Your task to perform on an android device: turn on the 24-hour format for clock Image 0: 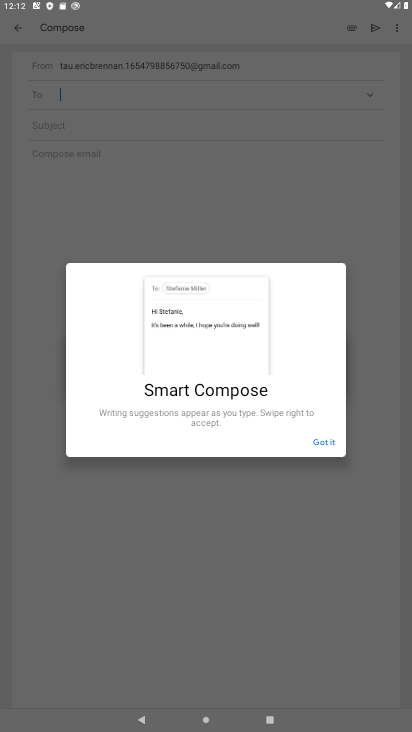
Step 0: press home button
Your task to perform on an android device: turn on the 24-hour format for clock Image 1: 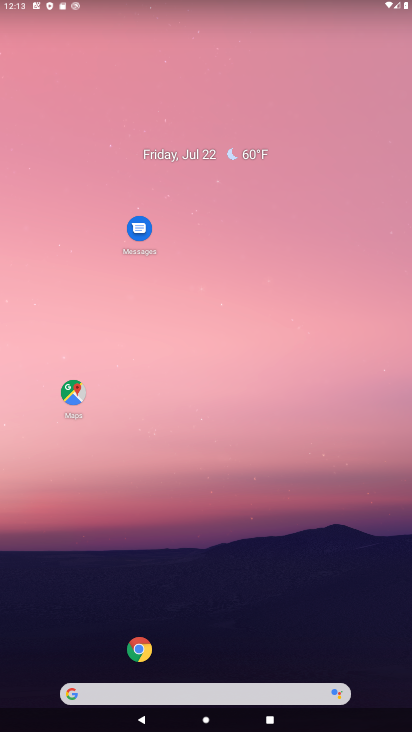
Step 1: drag from (165, 536) to (341, 60)
Your task to perform on an android device: turn on the 24-hour format for clock Image 2: 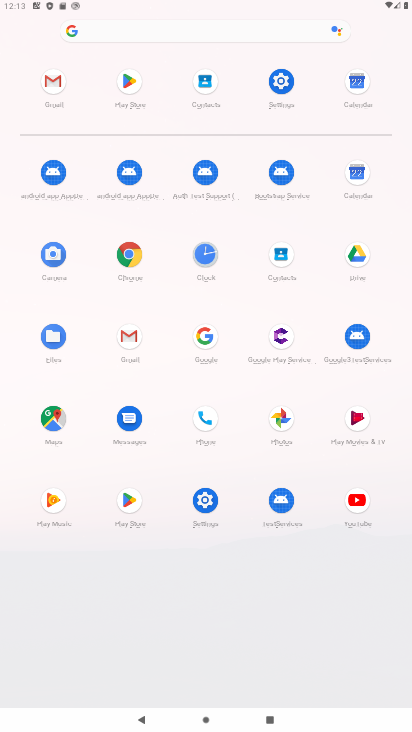
Step 2: click (225, 251)
Your task to perform on an android device: turn on the 24-hour format for clock Image 3: 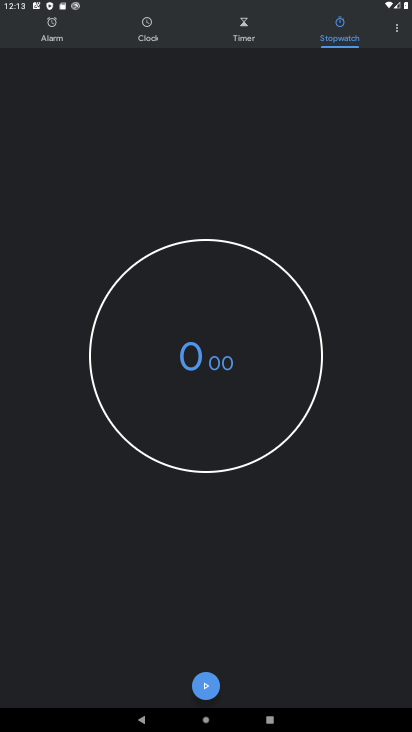
Step 3: click (410, 23)
Your task to perform on an android device: turn on the 24-hour format for clock Image 4: 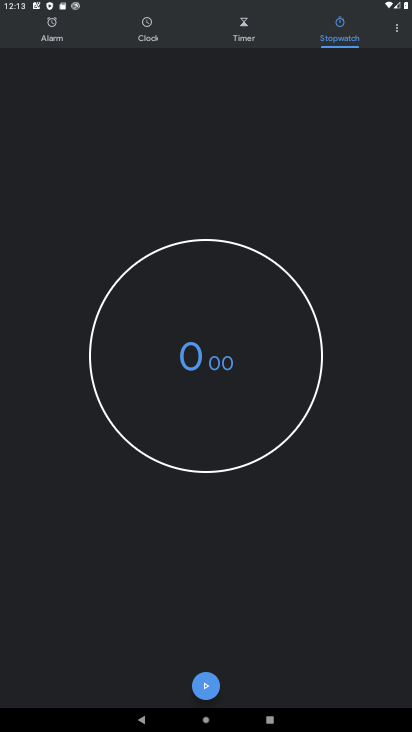
Step 4: click (392, 33)
Your task to perform on an android device: turn on the 24-hour format for clock Image 5: 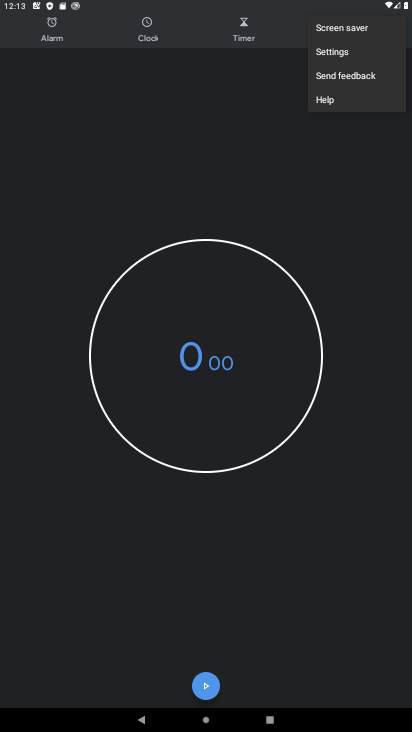
Step 5: click (331, 63)
Your task to perform on an android device: turn on the 24-hour format for clock Image 6: 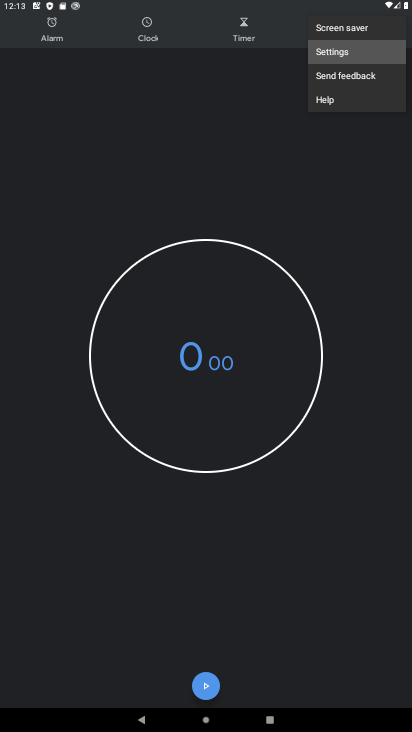
Step 6: click (331, 60)
Your task to perform on an android device: turn on the 24-hour format for clock Image 7: 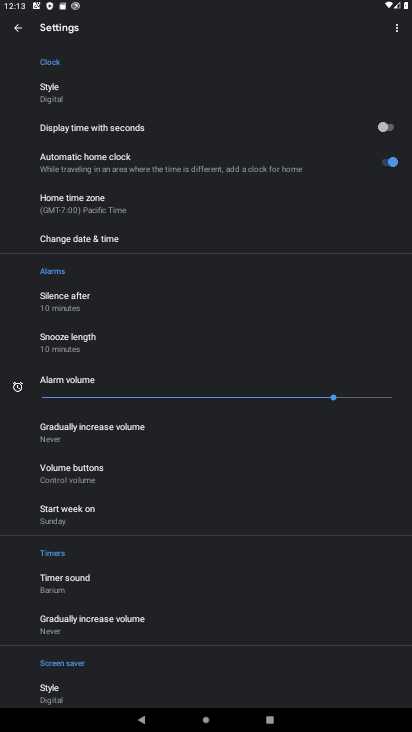
Step 7: click (90, 230)
Your task to perform on an android device: turn on the 24-hour format for clock Image 8: 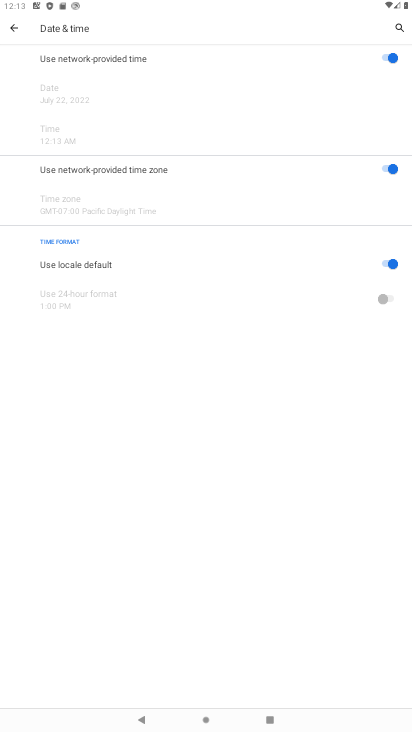
Step 8: click (395, 264)
Your task to perform on an android device: turn on the 24-hour format for clock Image 9: 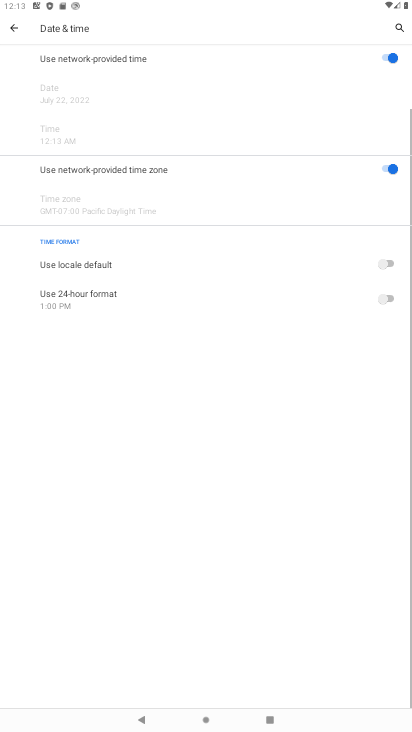
Step 9: click (381, 301)
Your task to perform on an android device: turn on the 24-hour format for clock Image 10: 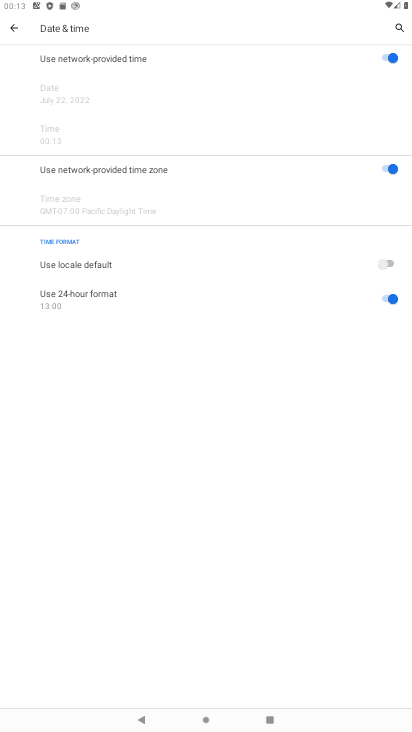
Step 10: task complete